Your task to perform on an android device: set the stopwatch Image 0: 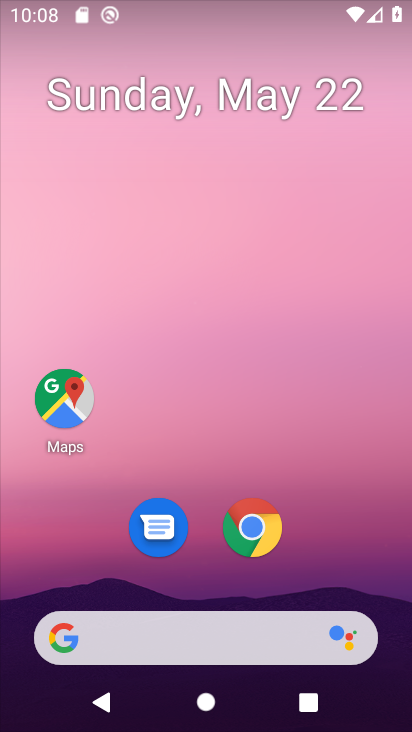
Step 0: drag from (282, 590) to (349, 55)
Your task to perform on an android device: set the stopwatch Image 1: 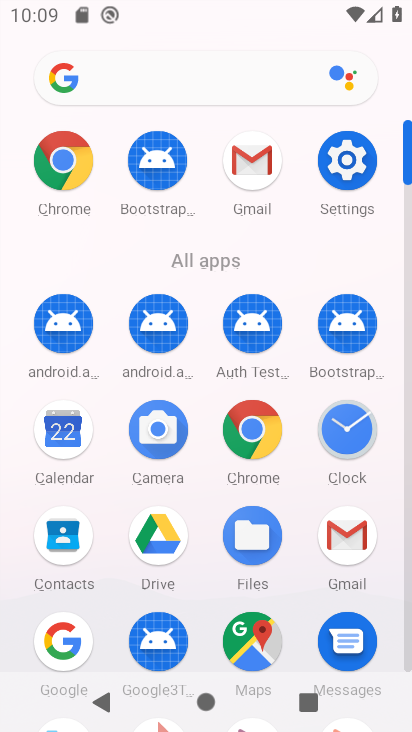
Step 1: click (361, 443)
Your task to perform on an android device: set the stopwatch Image 2: 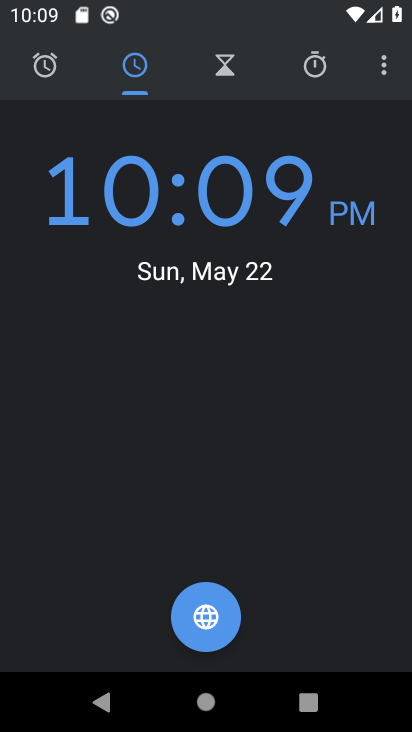
Step 2: click (308, 77)
Your task to perform on an android device: set the stopwatch Image 3: 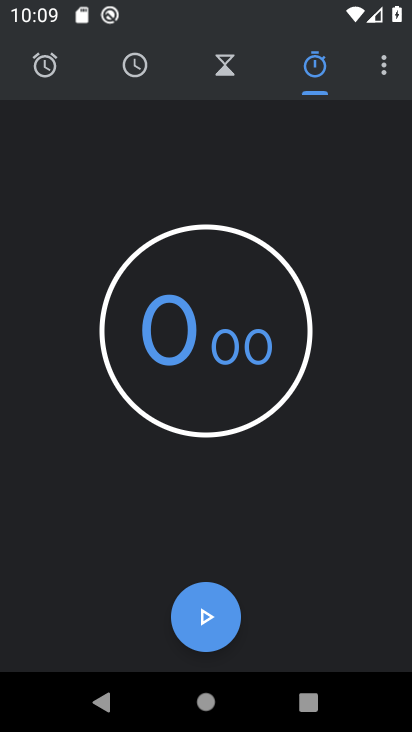
Step 3: click (199, 620)
Your task to perform on an android device: set the stopwatch Image 4: 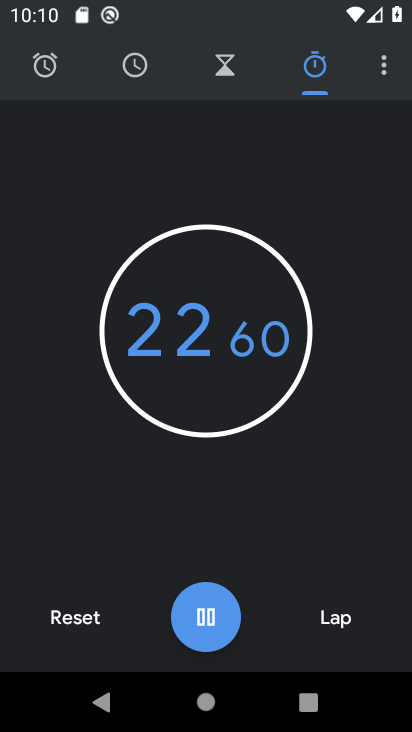
Step 4: task complete